Your task to perform on an android device: delete a single message in the gmail app Image 0: 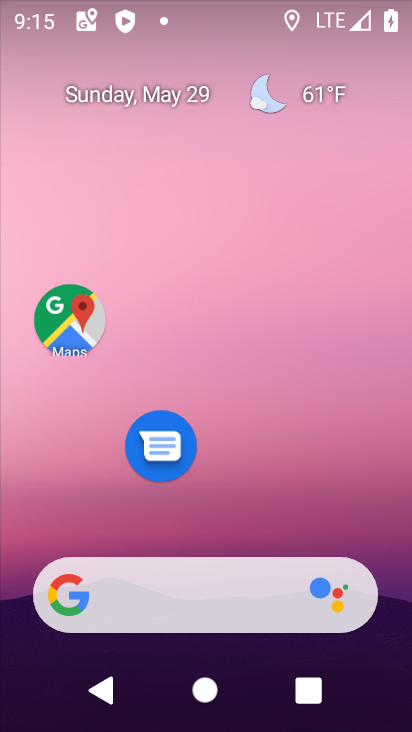
Step 0: drag from (217, 527) to (212, 133)
Your task to perform on an android device: delete a single message in the gmail app Image 1: 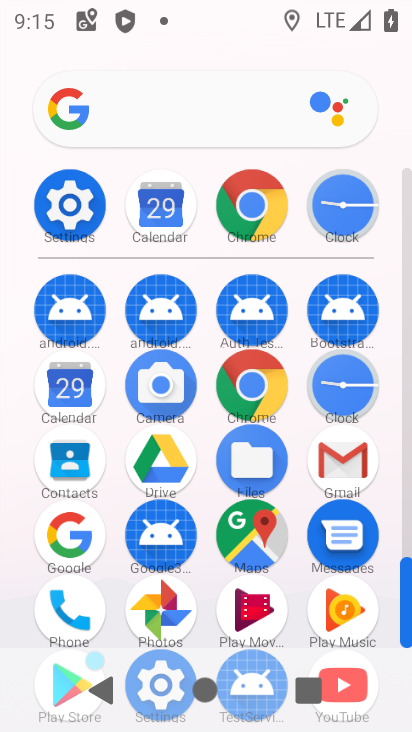
Step 1: click (322, 474)
Your task to perform on an android device: delete a single message in the gmail app Image 2: 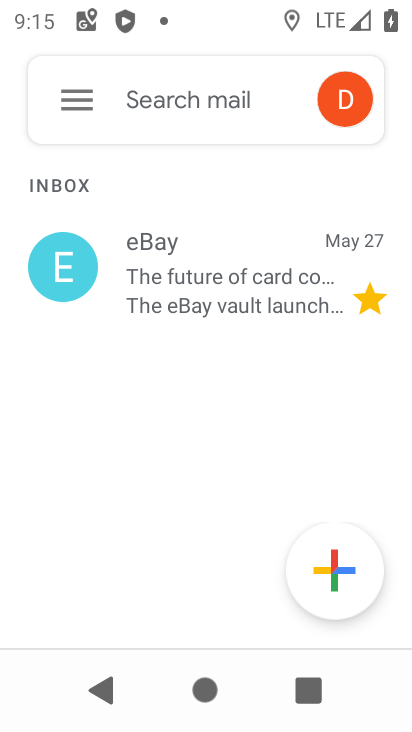
Step 2: click (86, 113)
Your task to perform on an android device: delete a single message in the gmail app Image 3: 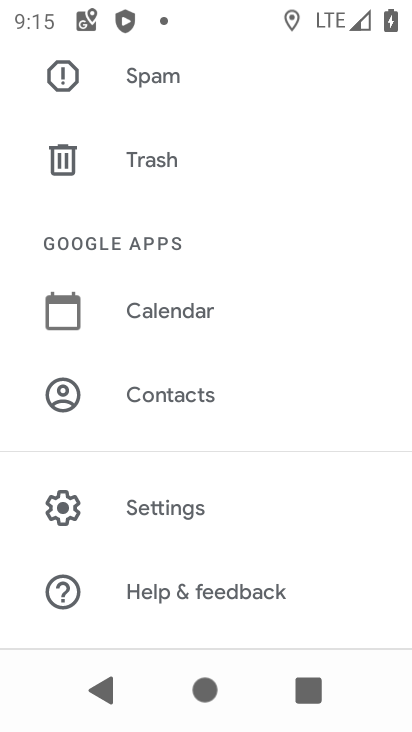
Step 3: drag from (186, 146) to (207, 444)
Your task to perform on an android device: delete a single message in the gmail app Image 4: 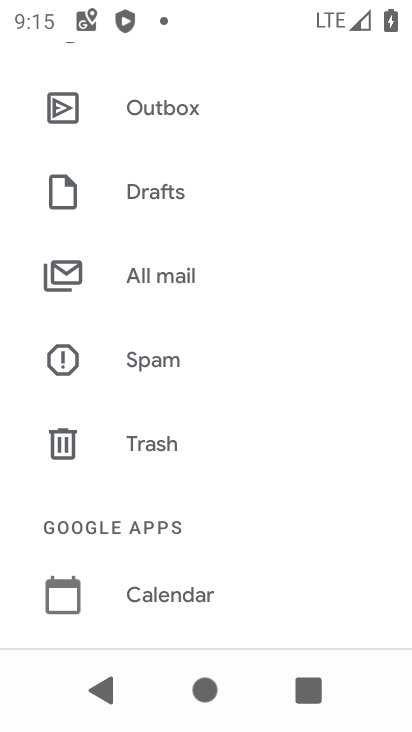
Step 4: click (154, 271)
Your task to perform on an android device: delete a single message in the gmail app Image 5: 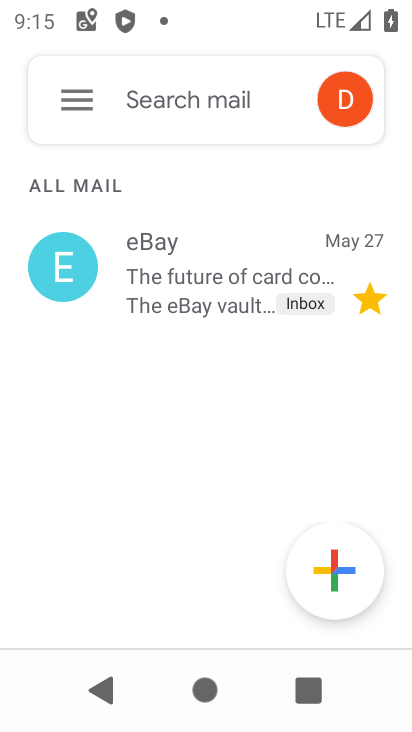
Step 5: click (154, 271)
Your task to perform on an android device: delete a single message in the gmail app Image 6: 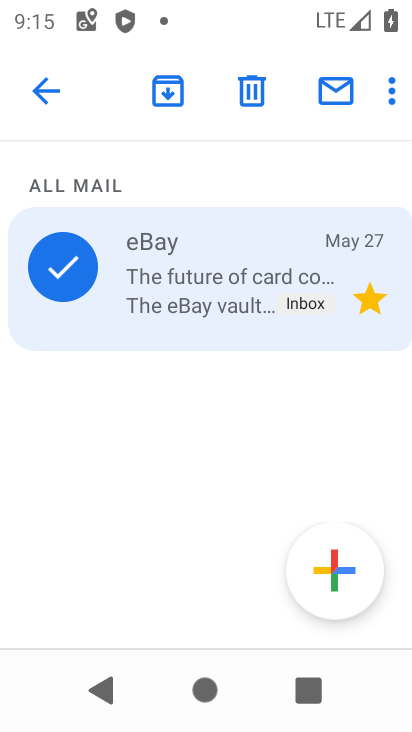
Step 6: click (239, 108)
Your task to perform on an android device: delete a single message in the gmail app Image 7: 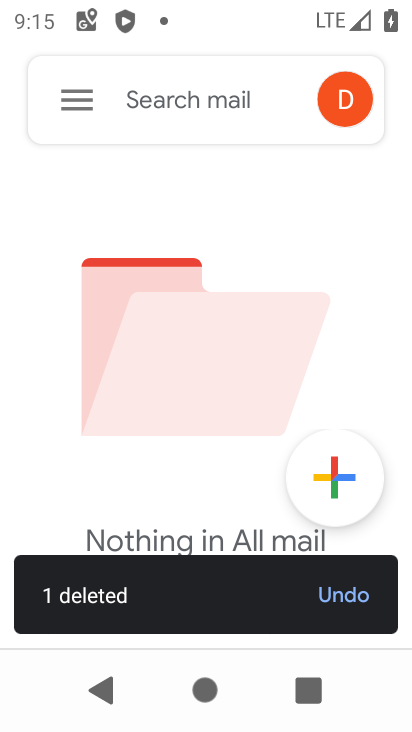
Step 7: task complete